Your task to perform on an android device: Find coffee shops on Maps Image 0: 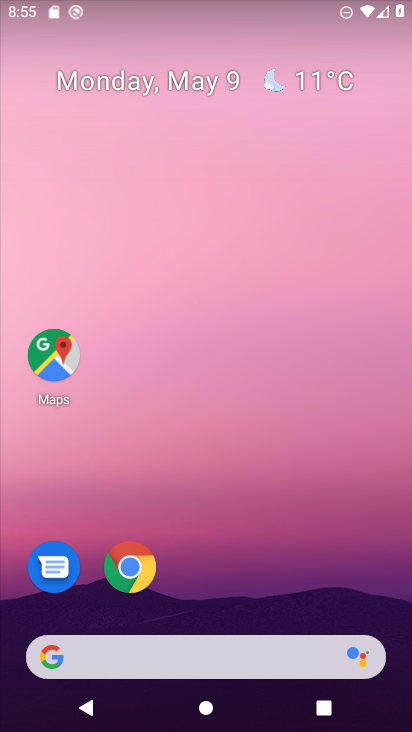
Step 0: click (68, 359)
Your task to perform on an android device: Find coffee shops on Maps Image 1: 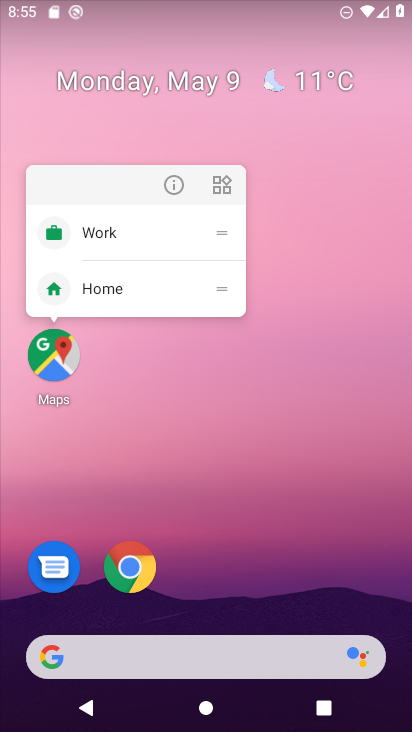
Step 1: click (54, 358)
Your task to perform on an android device: Find coffee shops on Maps Image 2: 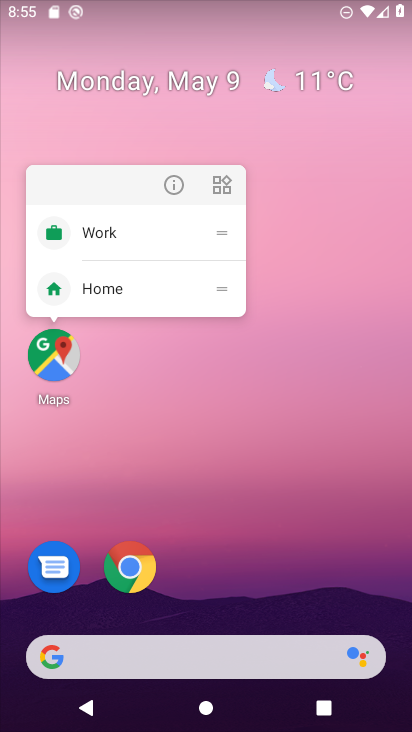
Step 2: click (46, 368)
Your task to perform on an android device: Find coffee shops on Maps Image 3: 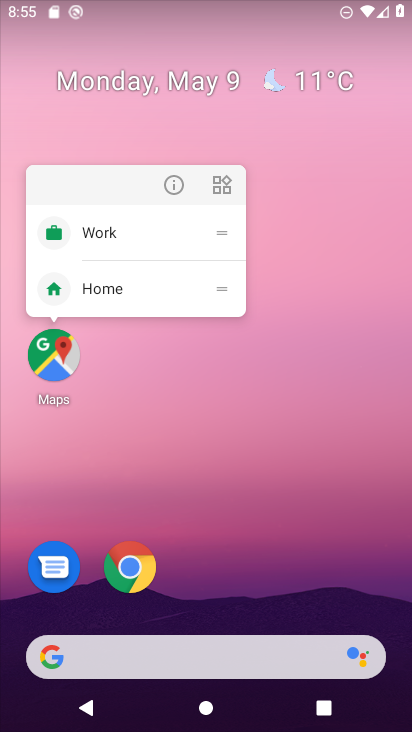
Step 3: click (57, 354)
Your task to perform on an android device: Find coffee shops on Maps Image 4: 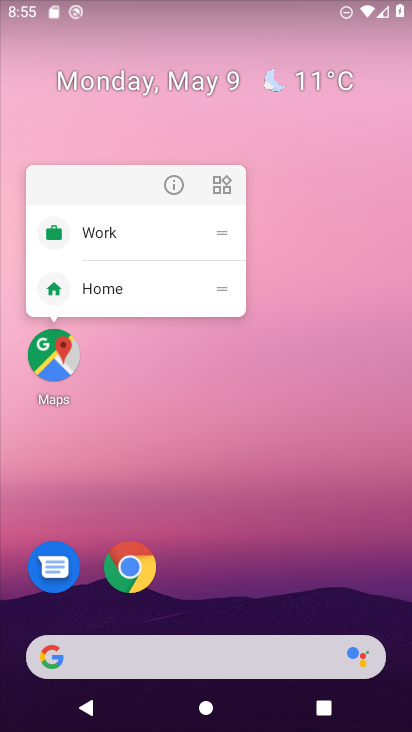
Step 4: click (58, 355)
Your task to perform on an android device: Find coffee shops on Maps Image 5: 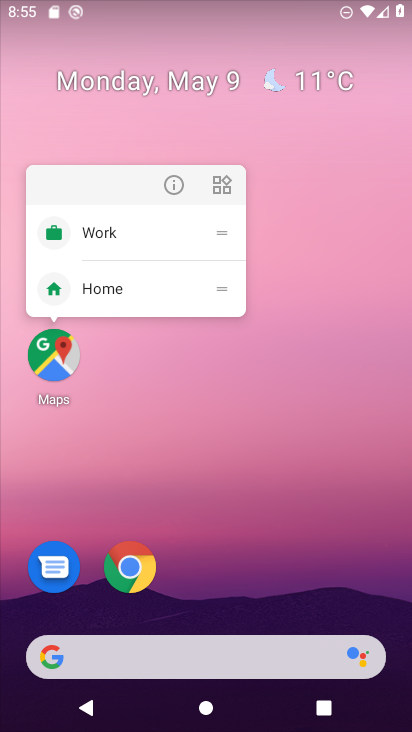
Step 5: click (62, 373)
Your task to perform on an android device: Find coffee shops on Maps Image 6: 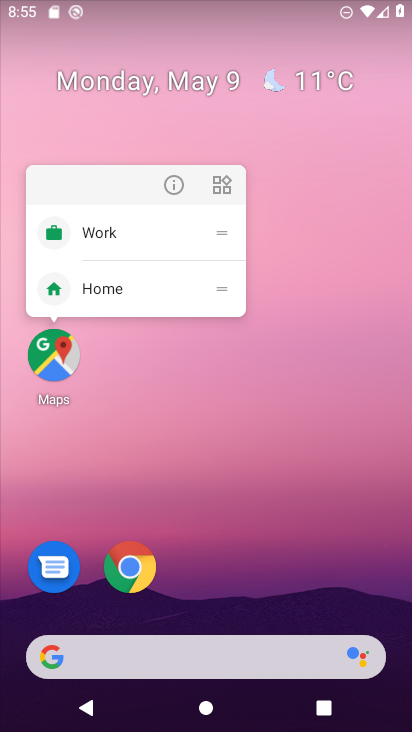
Step 6: drag from (242, 656) to (369, 35)
Your task to perform on an android device: Find coffee shops on Maps Image 7: 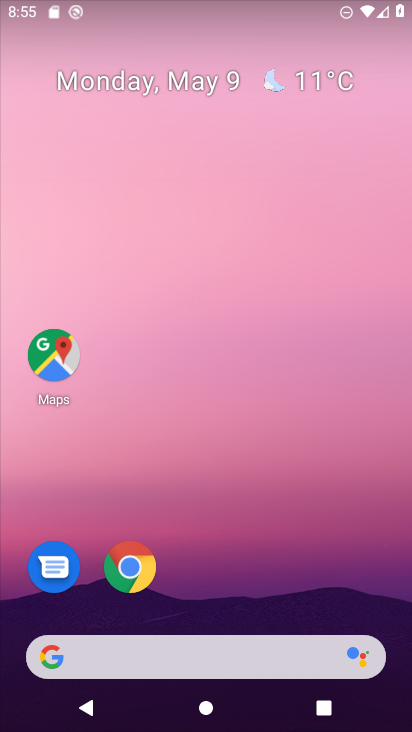
Step 7: drag from (209, 641) to (310, 38)
Your task to perform on an android device: Find coffee shops on Maps Image 8: 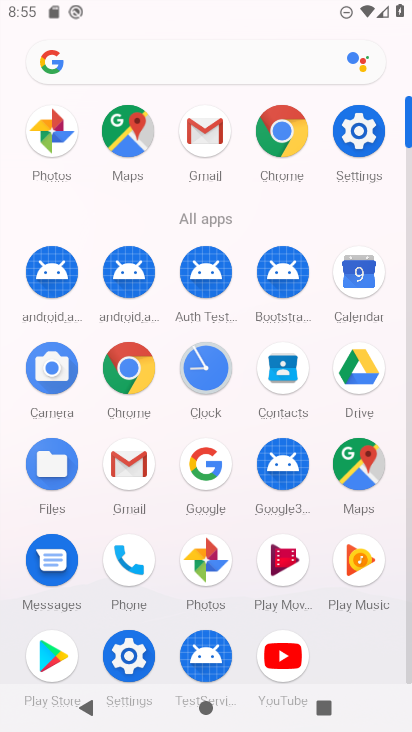
Step 8: click (125, 131)
Your task to perform on an android device: Find coffee shops on Maps Image 9: 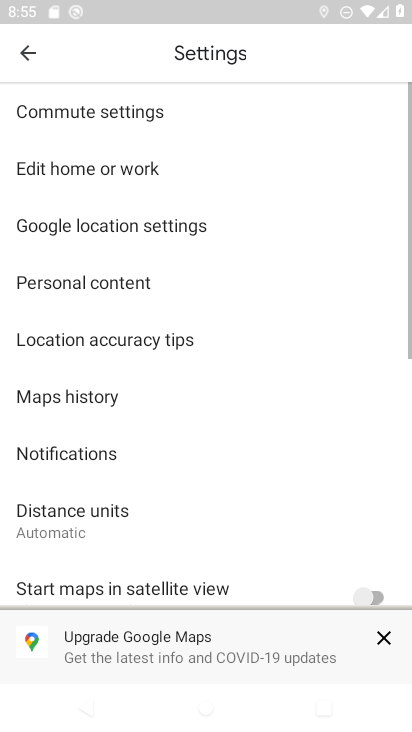
Step 9: click (34, 43)
Your task to perform on an android device: Find coffee shops on Maps Image 10: 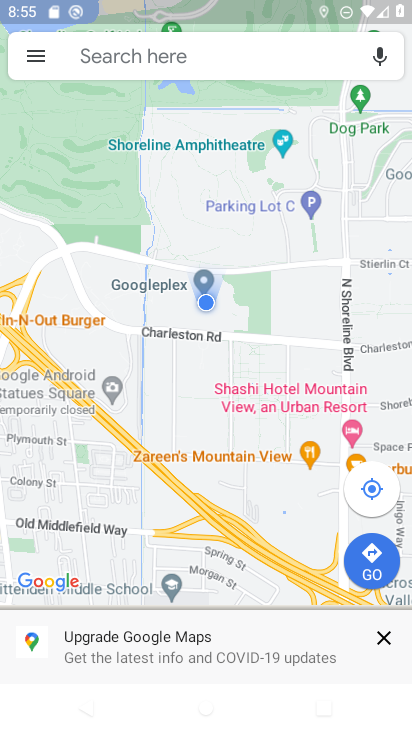
Step 10: click (162, 65)
Your task to perform on an android device: Find coffee shops on Maps Image 11: 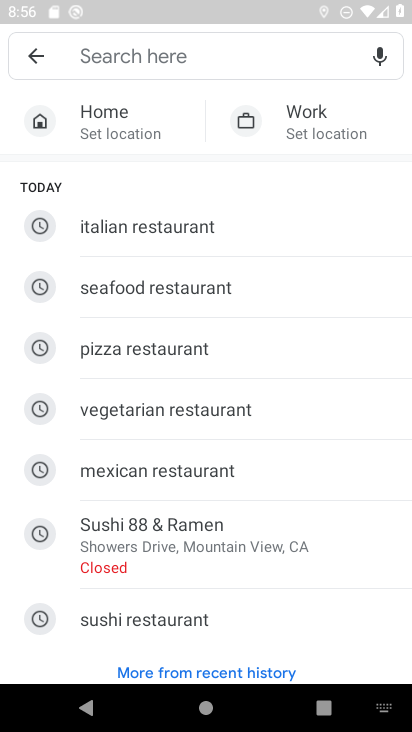
Step 11: type "Coffee shops"
Your task to perform on an android device: Find coffee shops on Maps Image 12: 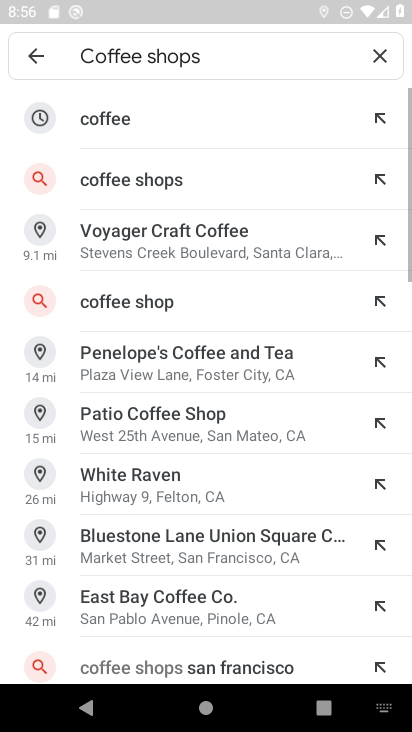
Step 12: click (194, 182)
Your task to perform on an android device: Find coffee shops on Maps Image 13: 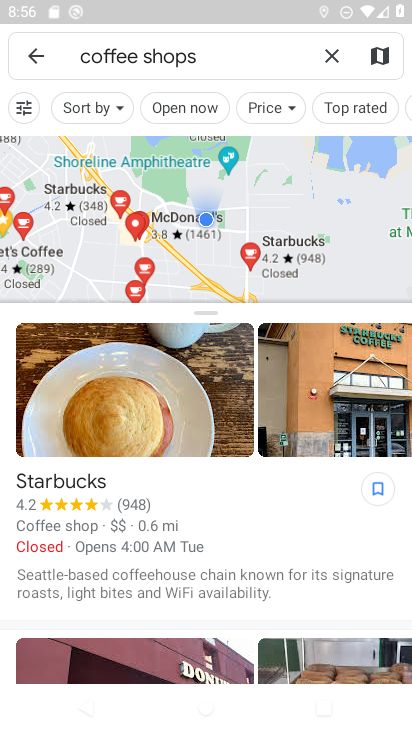
Step 13: task complete